Your task to perform on an android device: turn on location history Image 0: 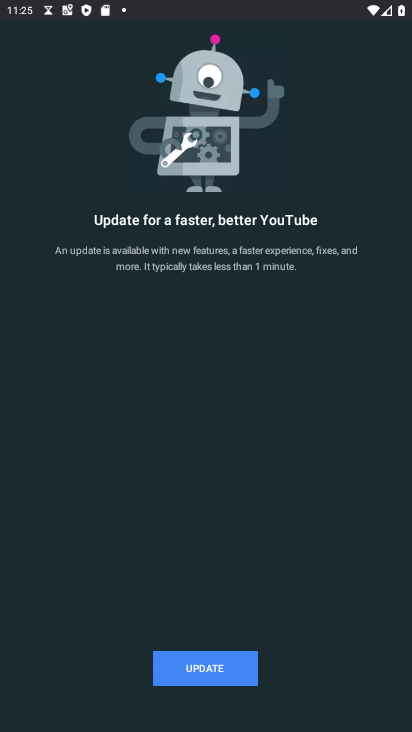
Step 0: press home button
Your task to perform on an android device: turn on location history Image 1: 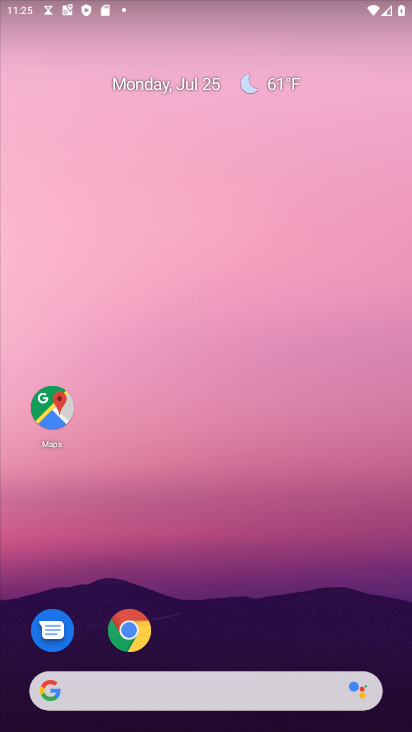
Step 1: drag from (247, 647) to (247, 32)
Your task to perform on an android device: turn on location history Image 2: 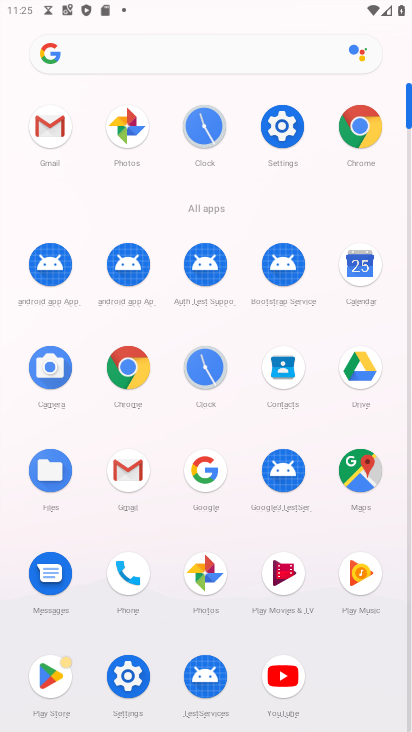
Step 2: click (283, 115)
Your task to perform on an android device: turn on location history Image 3: 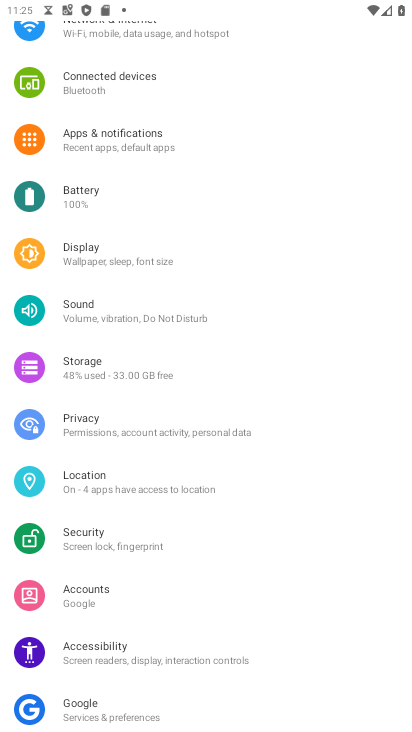
Step 3: click (92, 479)
Your task to perform on an android device: turn on location history Image 4: 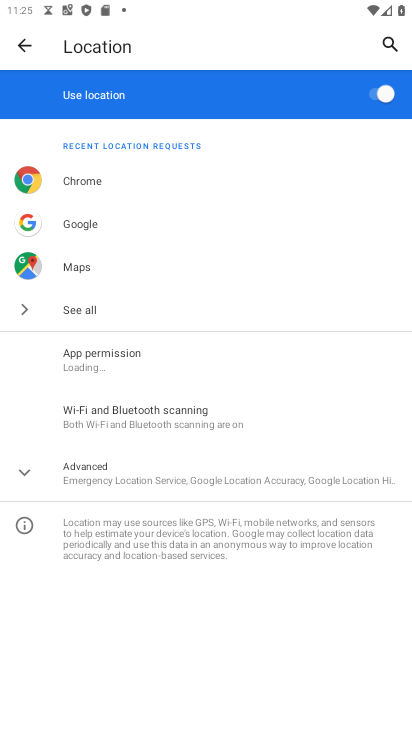
Step 4: click (112, 479)
Your task to perform on an android device: turn on location history Image 5: 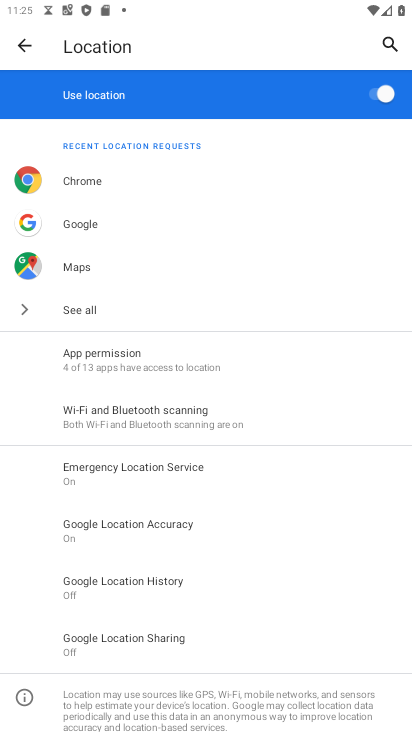
Step 5: click (130, 577)
Your task to perform on an android device: turn on location history Image 6: 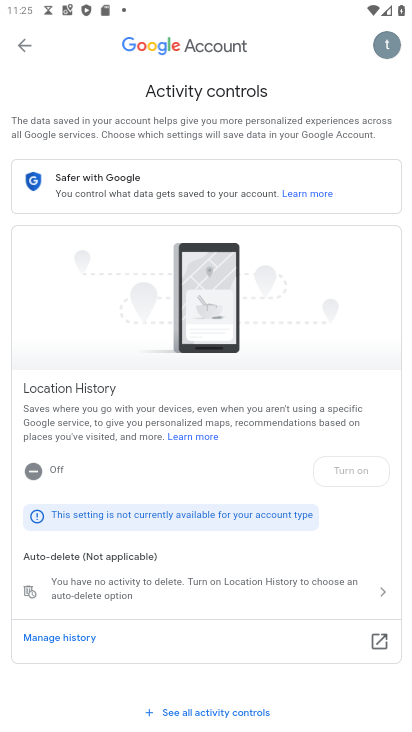
Step 6: click (342, 464)
Your task to perform on an android device: turn on location history Image 7: 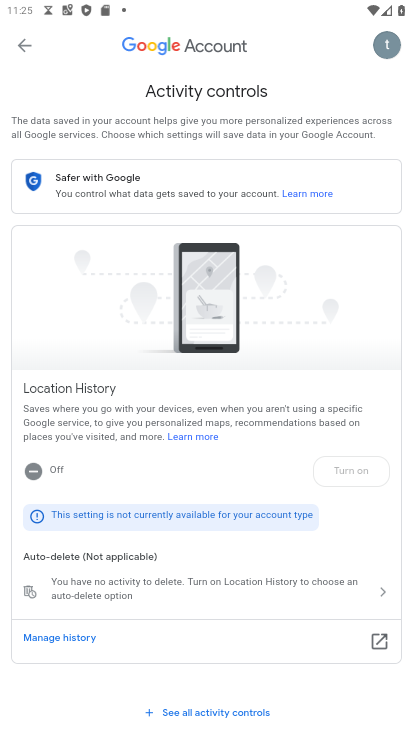
Step 7: click (342, 466)
Your task to perform on an android device: turn on location history Image 8: 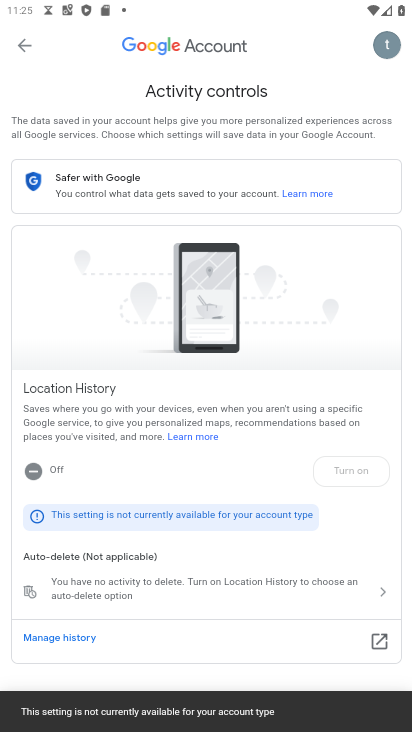
Step 8: click (345, 474)
Your task to perform on an android device: turn on location history Image 9: 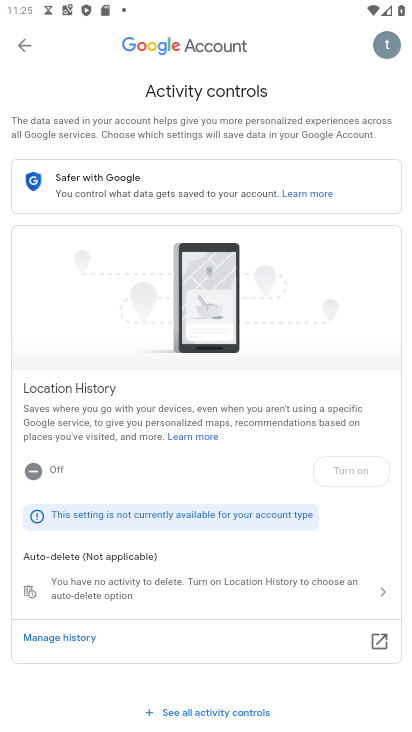
Step 9: click (345, 474)
Your task to perform on an android device: turn on location history Image 10: 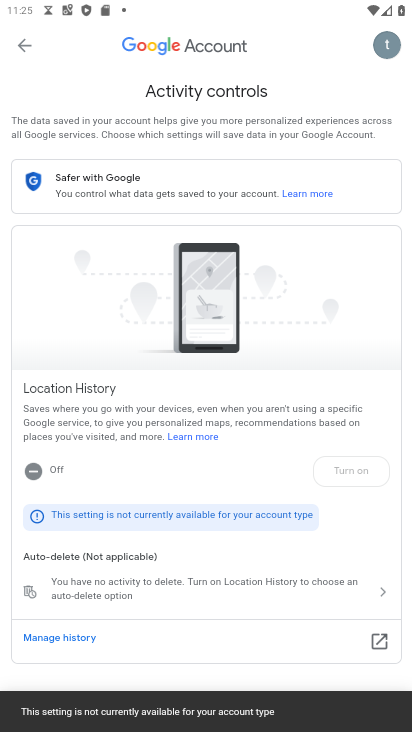
Step 10: task complete